Your task to perform on an android device: open chrome privacy settings Image 0: 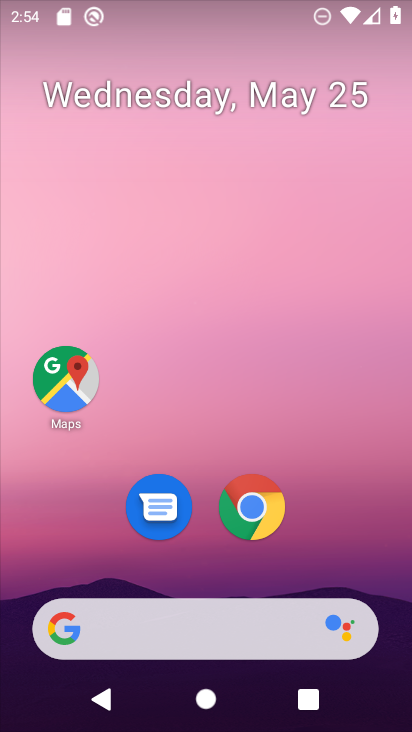
Step 0: drag from (228, 639) to (241, 150)
Your task to perform on an android device: open chrome privacy settings Image 1: 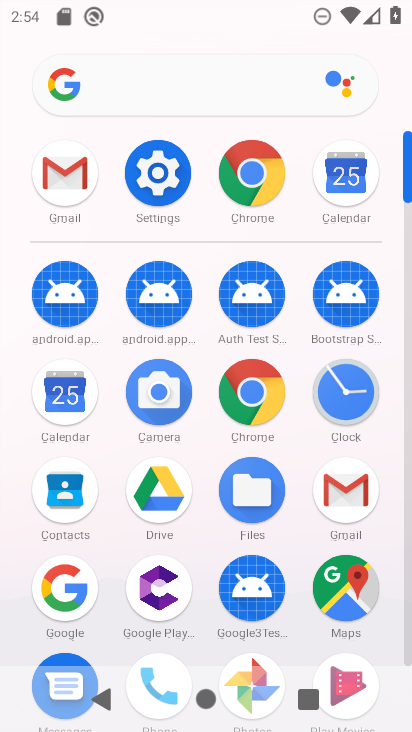
Step 1: click (252, 192)
Your task to perform on an android device: open chrome privacy settings Image 2: 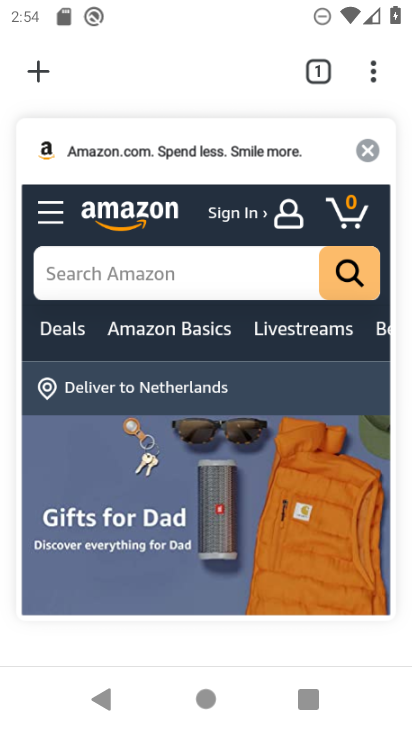
Step 2: click (374, 81)
Your task to perform on an android device: open chrome privacy settings Image 3: 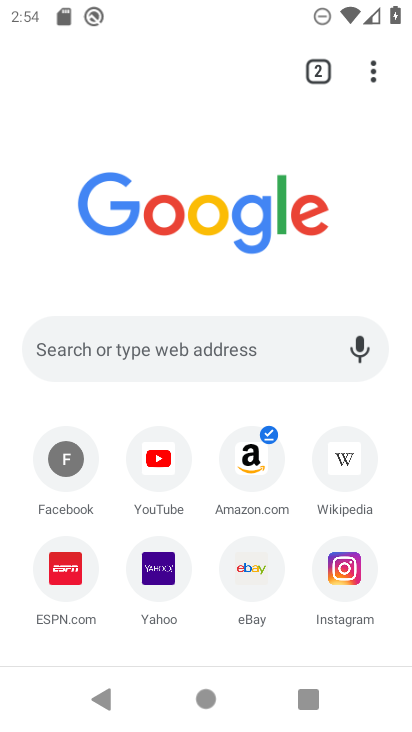
Step 3: click (373, 73)
Your task to perform on an android device: open chrome privacy settings Image 4: 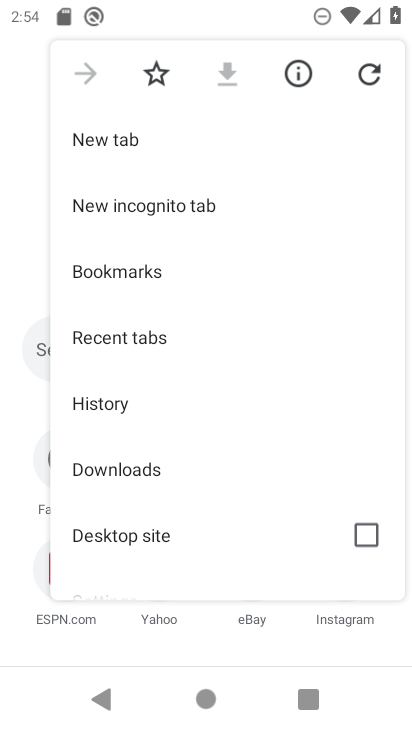
Step 4: drag from (282, 438) to (270, 238)
Your task to perform on an android device: open chrome privacy settings Image 5: 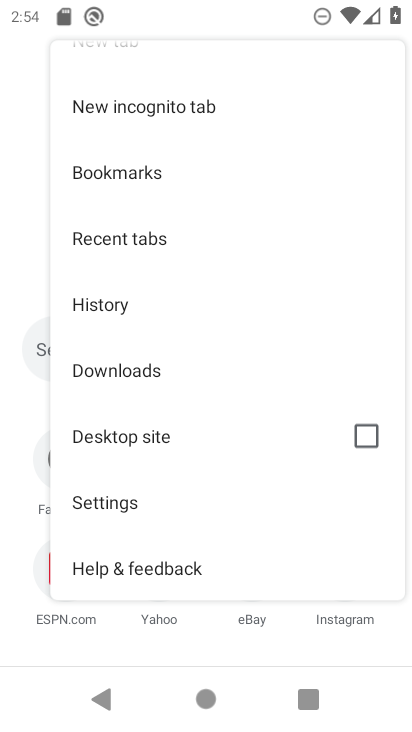
Step 5: click (132, 503)
Your task to perform on an android device: open chrome privacy settings Image 6: 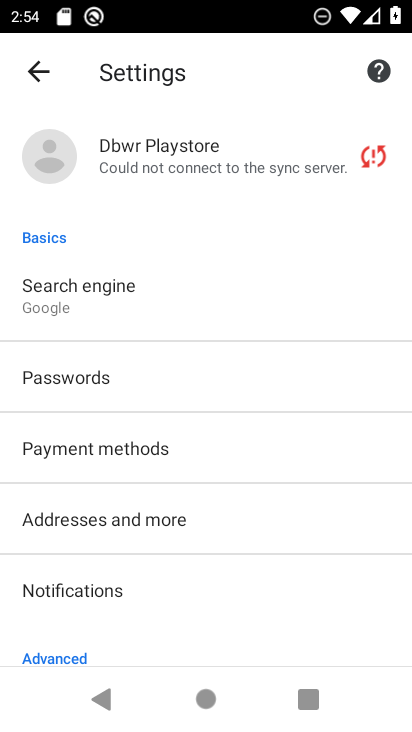
Step 6: drag from (171, 601) to (175, 563)
Your task to perform on an android device: open chrome privacy settings Image 7: 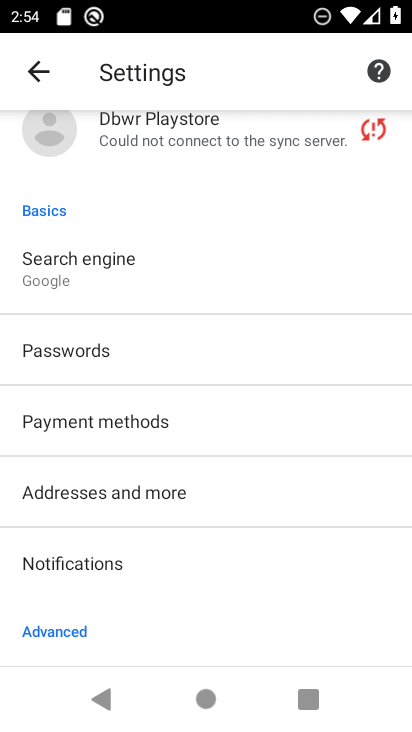
Step 7: drag from (155, 638) to (210, 350)
Your task to perform on an android device: open chrome privacy settings Image 8: 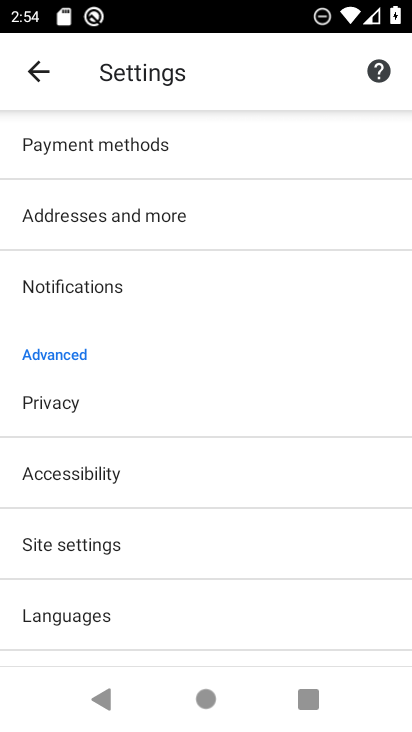
Step 8: click (97, 407)
Your task to perform on an android device: open chrome privacy settings Image 9: 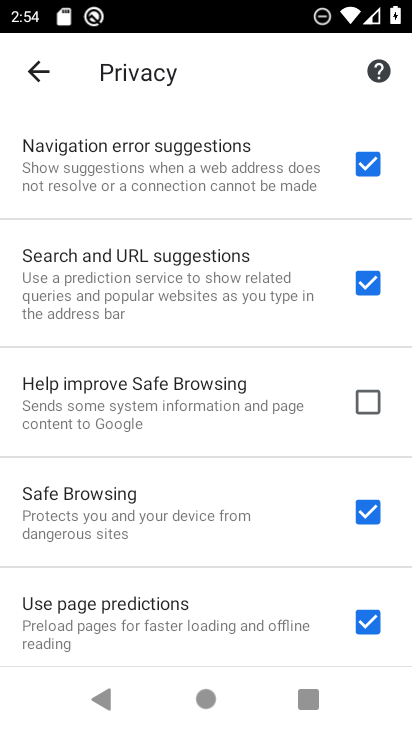
Step 9: task complete